Your task to perform on an android device: change notification settings in the gmail app Image 0: 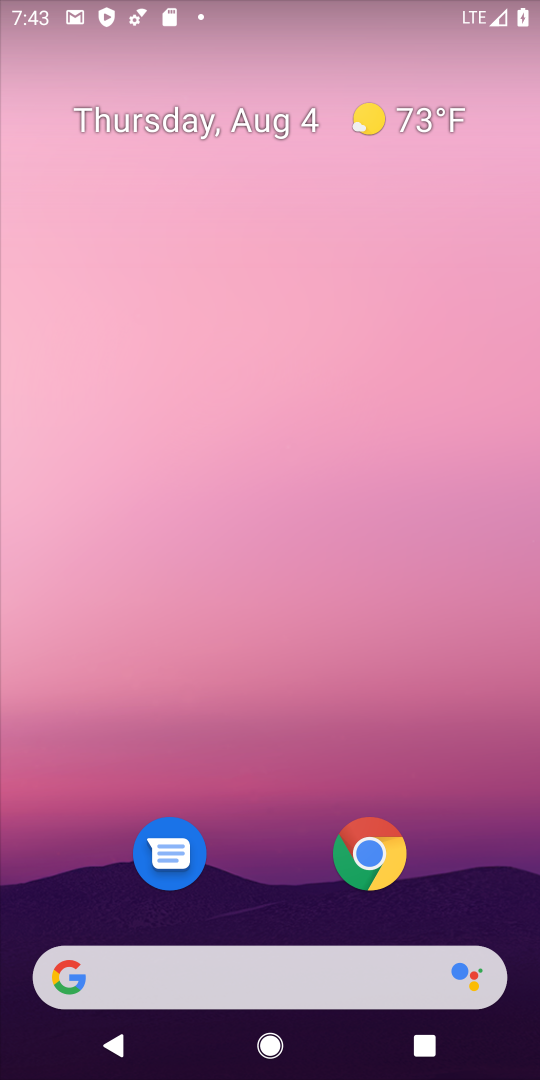
Step 0: drag from (187, 954) to (188, 494)
Your task to perform on an android device: change notification settings in the gmail app Image 1: 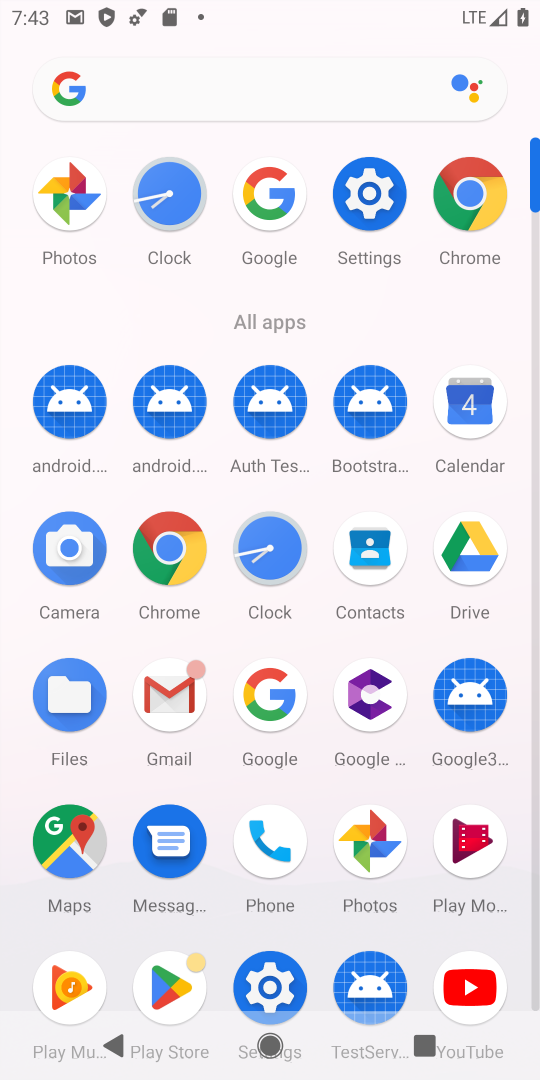
Step 1: click (186, 693)
Your task to perform on an android device: change notification settings in the gmail app Image 2: 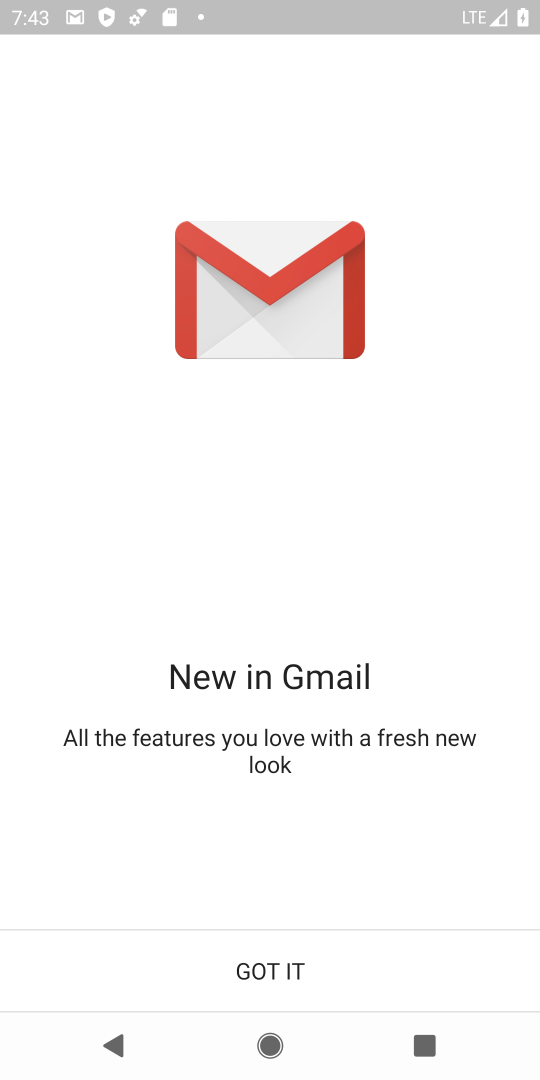
Step 2: click (278, 972)
Your task to perform on an android device: change notification settings in the gmail app Image 3: 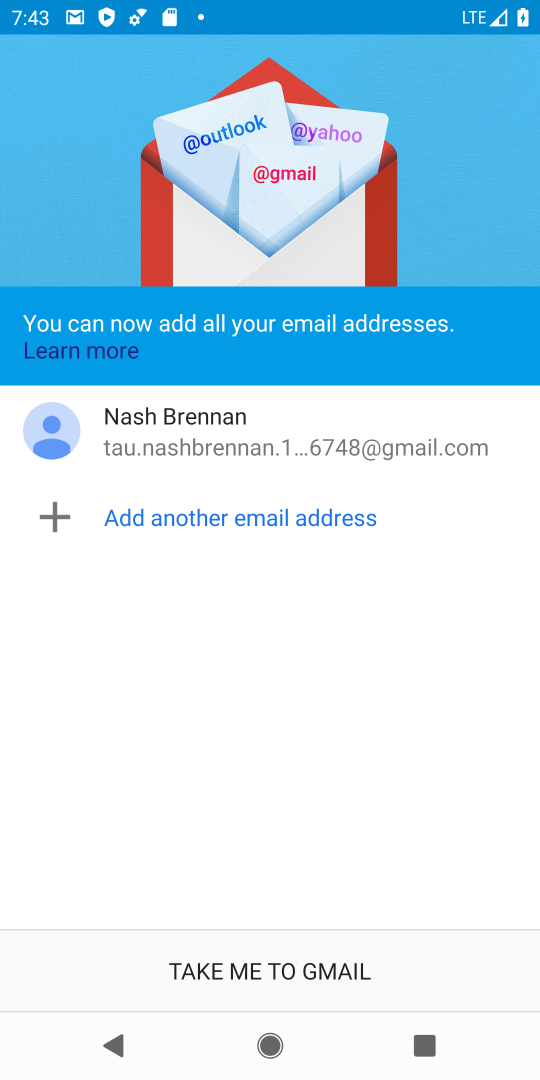
Step 3: click (278, 972)
Your task to perform on an android device: change notification settings in the gmail app Image 4: 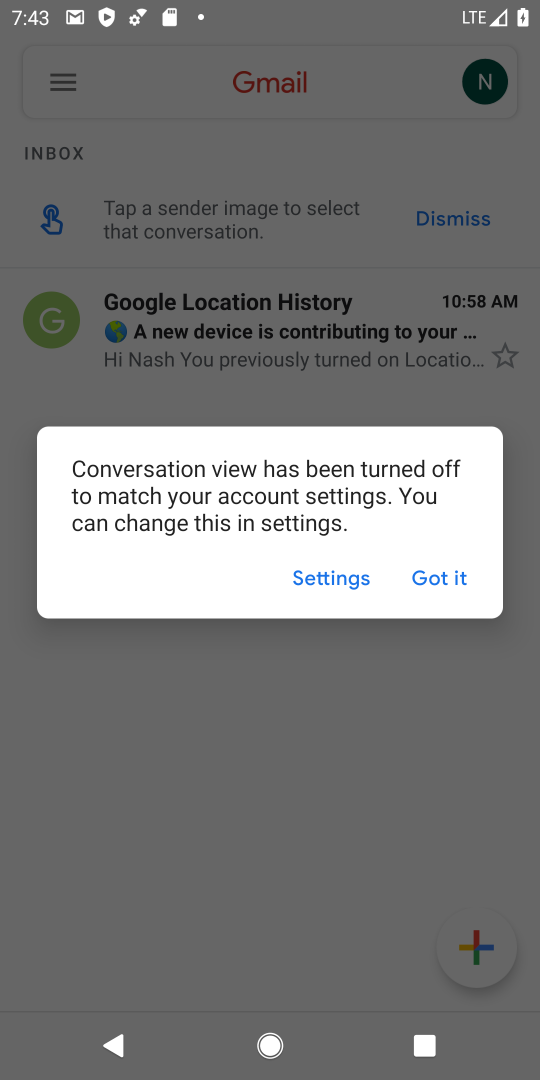
Step 4: click (414, 571)
Your task to perform on an android device: change notification settings in the gmail app Image 5: 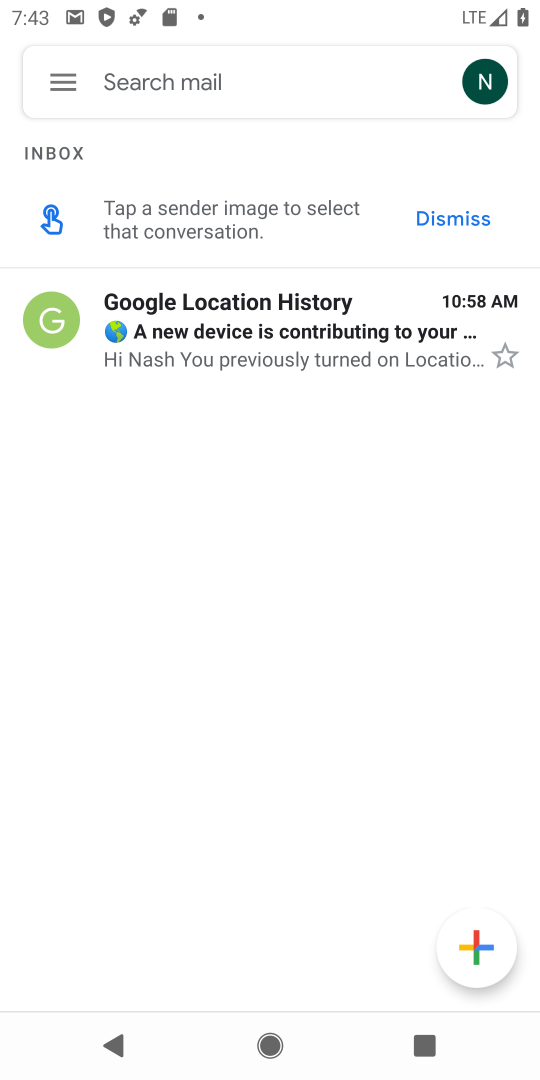
Step 5: click (71, 86)
Your task to perform on an android device: change notification settings in the gmail app Image 6: 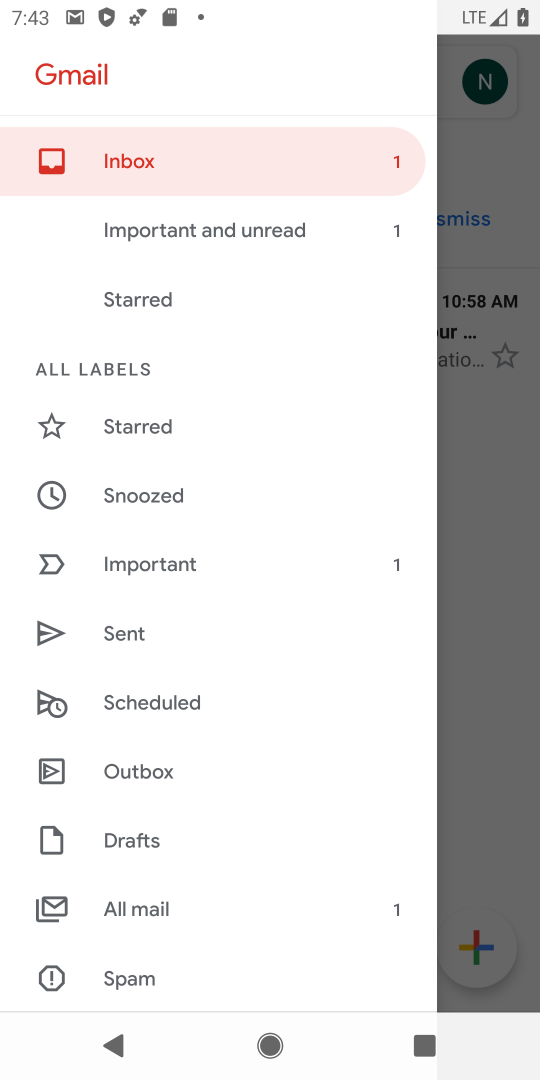
Step 6: drag from (194, 969) to (213, 504)
Your task to perform on an android device: change notification settings in the gmail app Image 7: 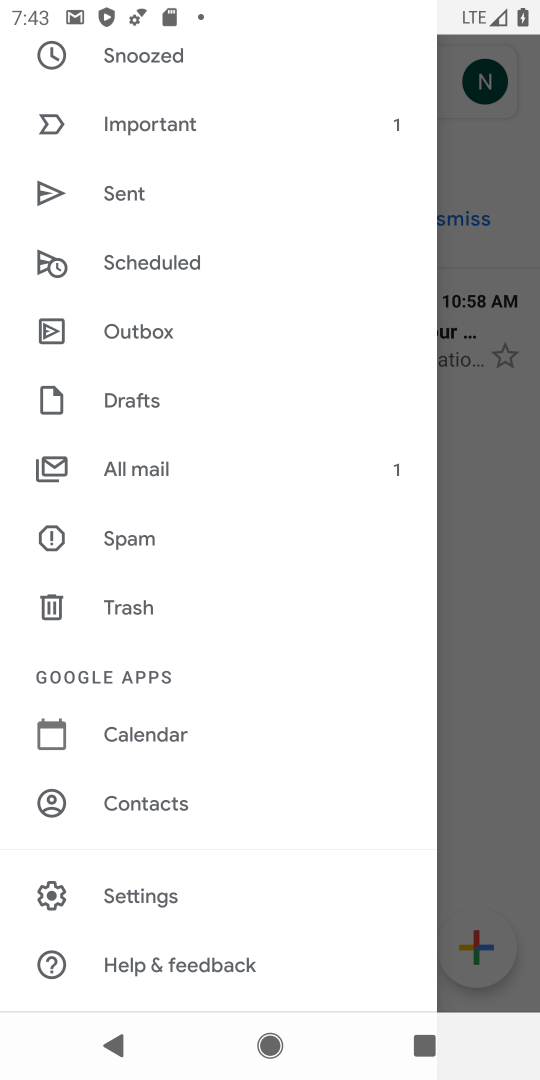
Step 7: click (170, 899)
Your task to perform on an android device: change notification settings in the gmail app Image 8: 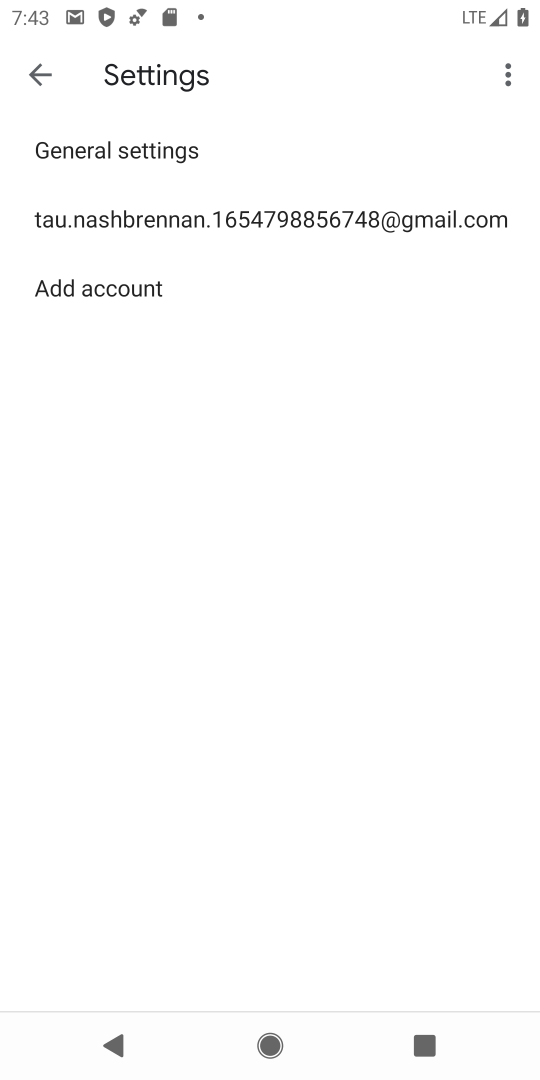
Step 8: click (102, 216)
Your task to perform on an android device: change notification settings in the gmail app Image 9: 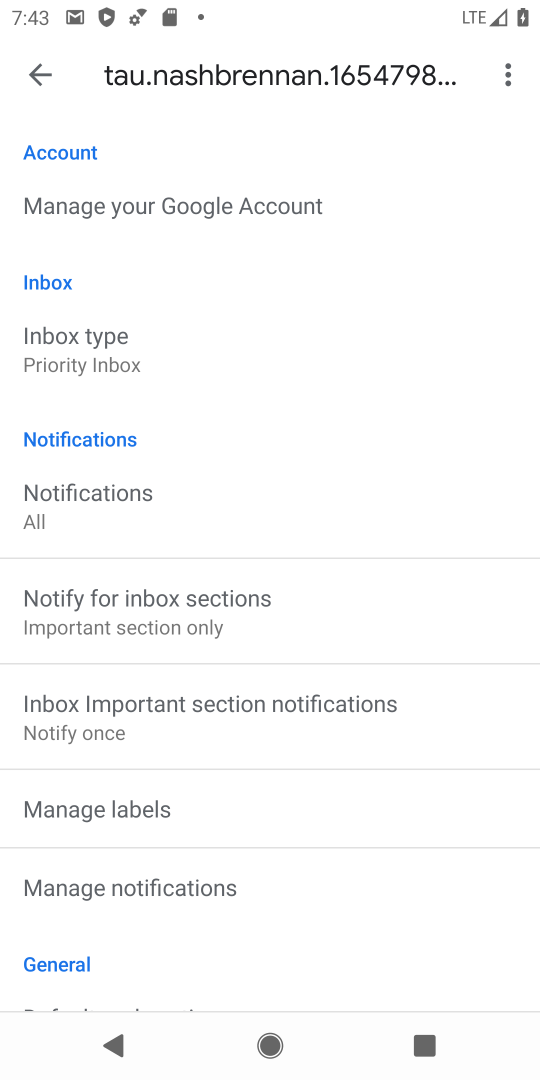
Step 9: click (97, 498)
Your task to perform on an android device: change notification settings in the gmail app Image 10: 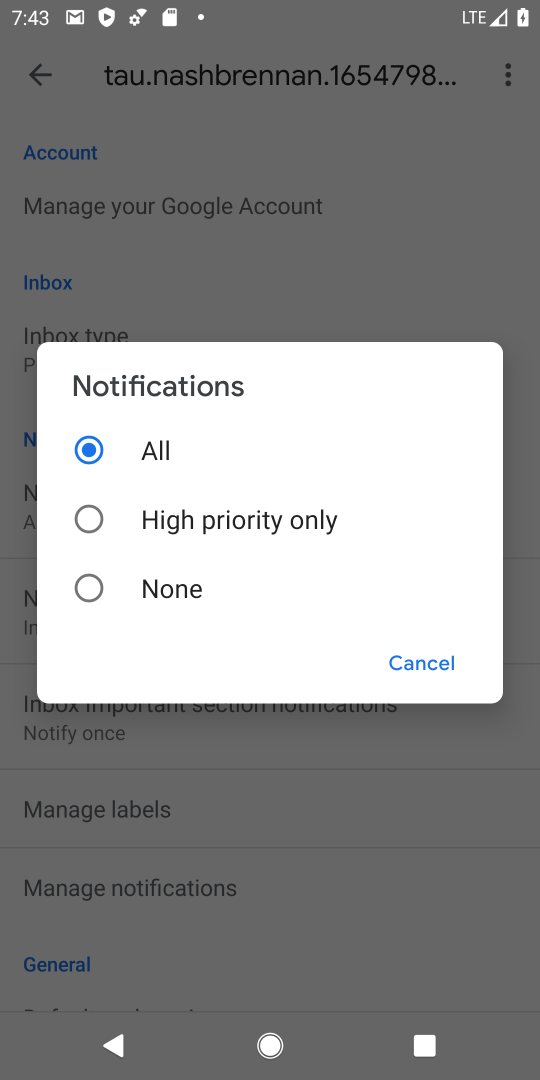
Step 10: click (155, 514)
Your task to perform on an android device: change notification settings in the gmail app Image 11: 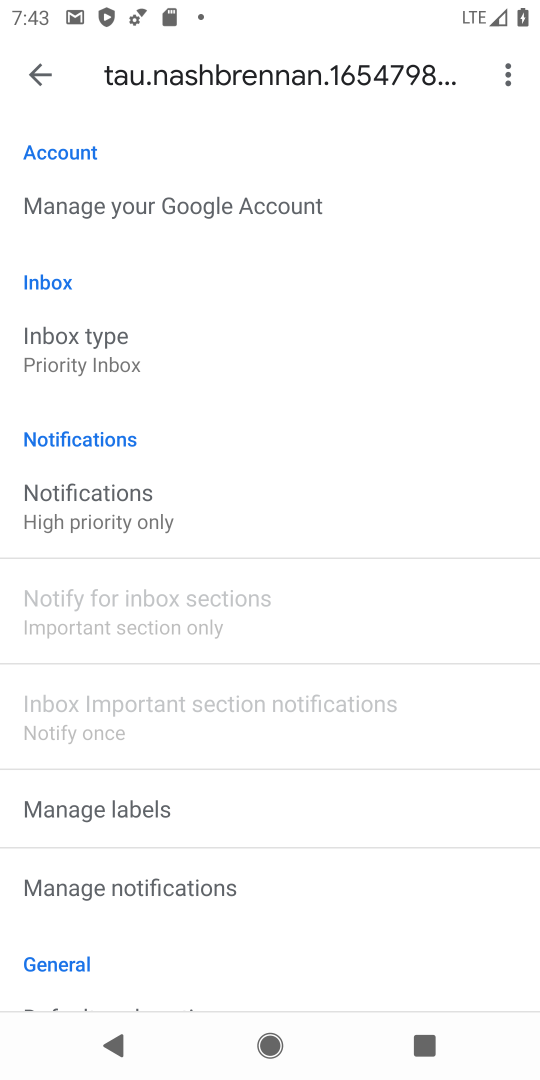
Step 11: task complete